Your task to perform on an android device: Go to eBay Image 0: 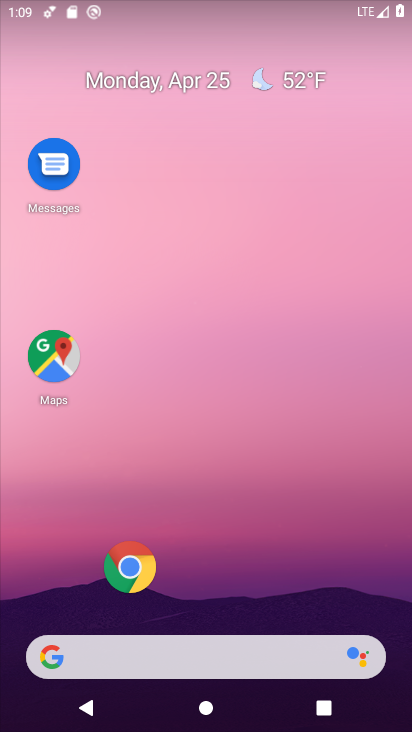
Step 0: drag from (235, 518) to (408, 12)
Your task to perform on an android device: Go to eBay Image 1: 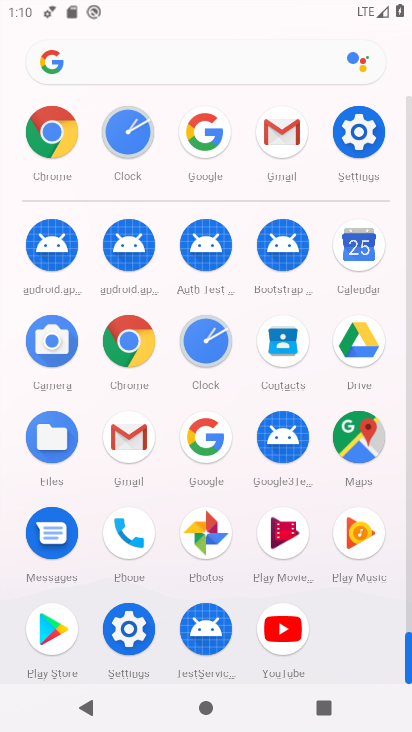
Step 1: click (60, 127)
Your task to perform on an android device: Go to eBay Image 2: 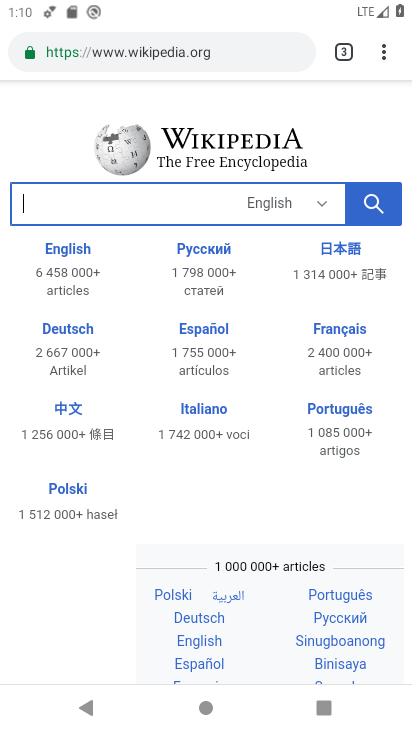
Step 2: click (189, 56)
Your task to perform on an android device: Go to eBay Image 3: 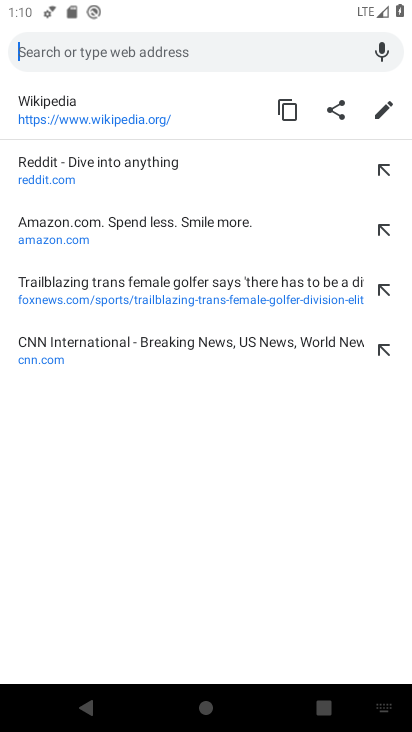
Step 3: type "ebay"
Your task to perform on an android device: Go to eBay Image 4: 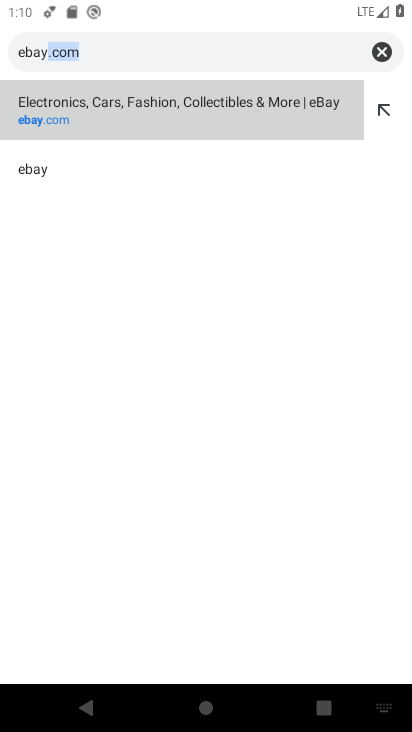
Step 4: click (242, 85)
Your task to perform on an android device: Go to eBay Image 5: 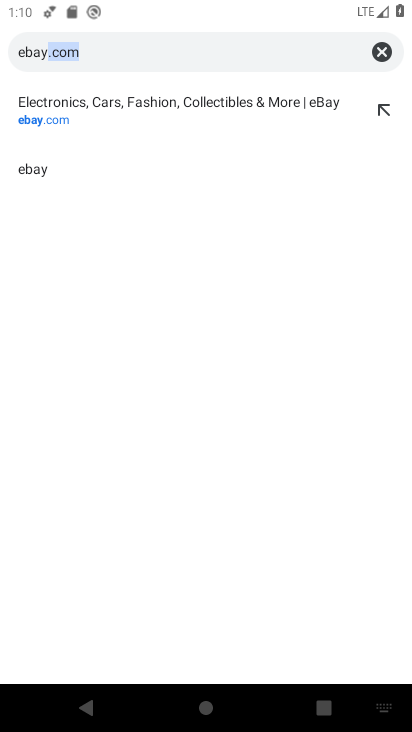
Step 5: click (259, 131)
Your task to perform on an android device: Go to eBay Image 6: 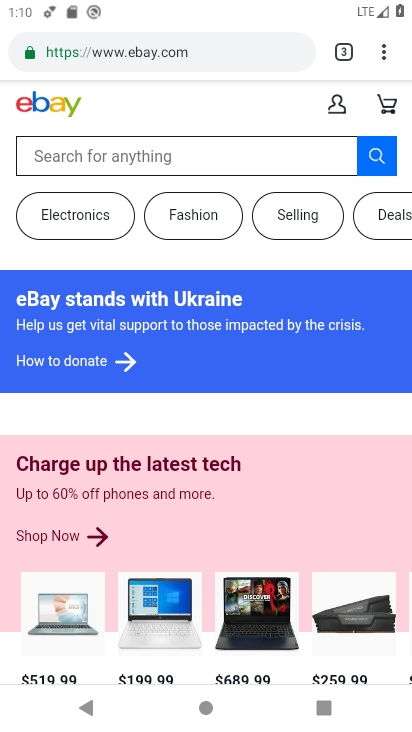
Step 6: task complete